Your task to perform on an android device: Open calendar and show me the first week of next month Image 0: 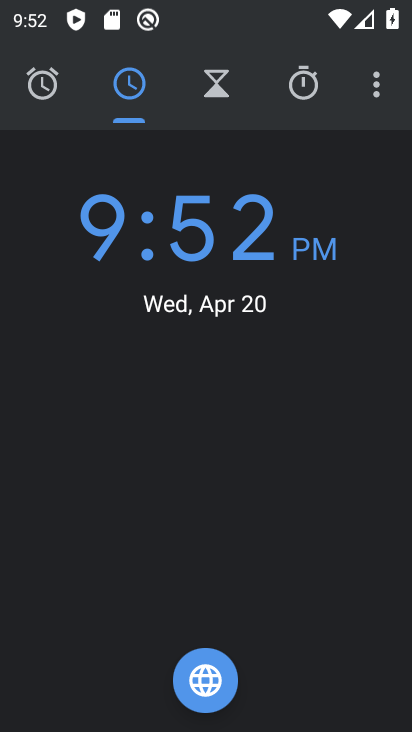
Step 0: press back button
Your task to perform on an android device: Open calendar and show me the first week of next month Image 1: 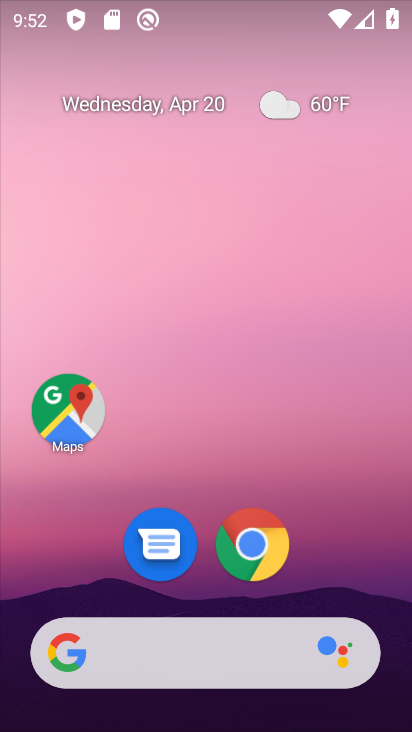
Step 1: drag from (387, 584) to (348, 227)
Your task to perform on an android device: Open calendar and show me the first week of next month Image 2: 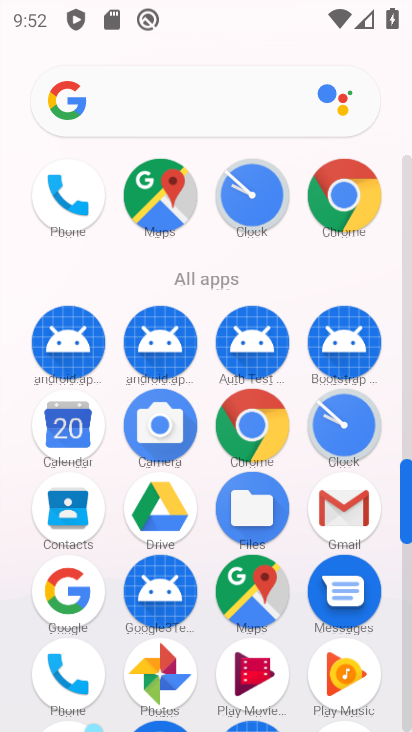
Step 2: click (60, 433)
Your task to perform on an android device: Open calendar and show me the first week of next month Image 3: 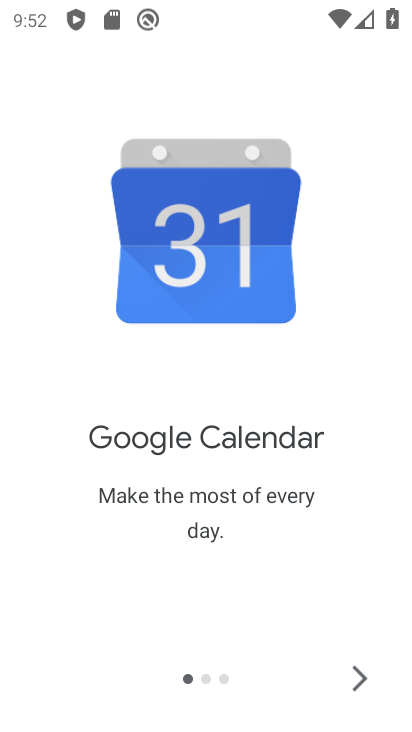
Step 3: click (359, 674)
Your task to perform on an android device: Open calendar and show me the first week of next month Image 4: 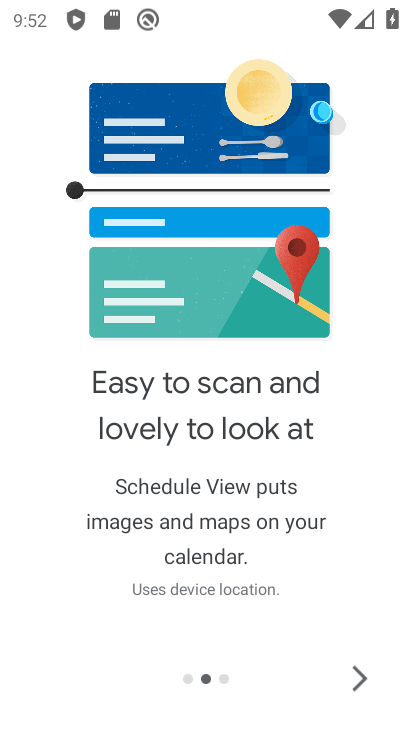
Step 4: click (359, 674)
Your task to perform on an android device: Open calendar and show me the first week of next month Image 5: 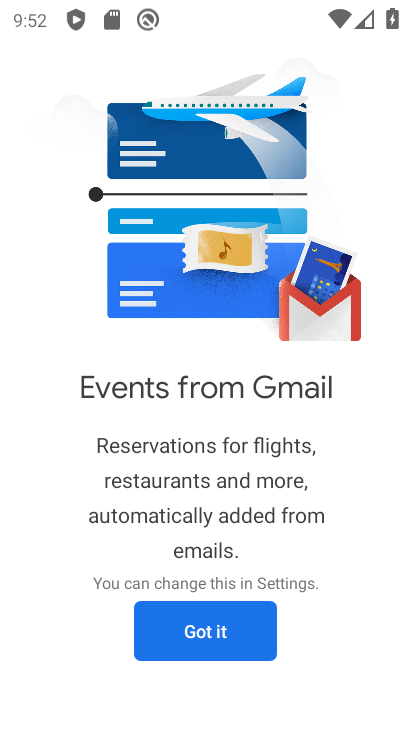
Step 5: click (249, 641)
Your task to perform on an android device: Open calendar and show me the first week of next month Image 6: 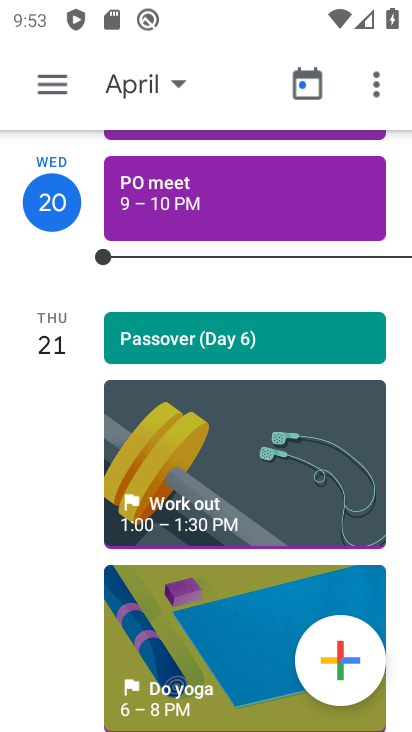
Step 6: click (52, 86)
Your task to perform on an android device: Open calendar and show me the first week of next month Image 7: 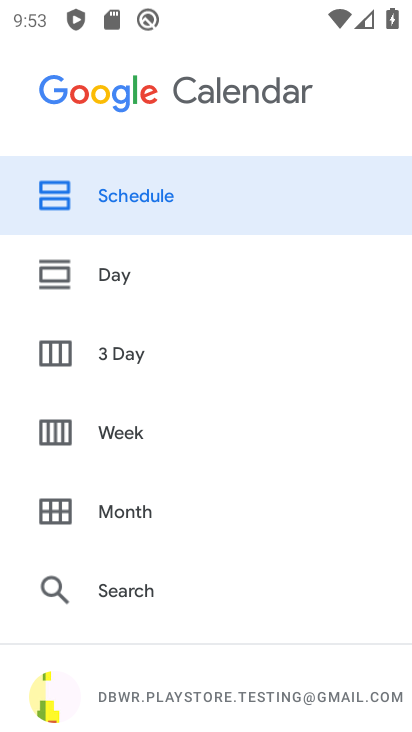
Step 7: click (146, 429)
Your task to perform on an android device: Open calendar and show me the first week of next month Image 8: 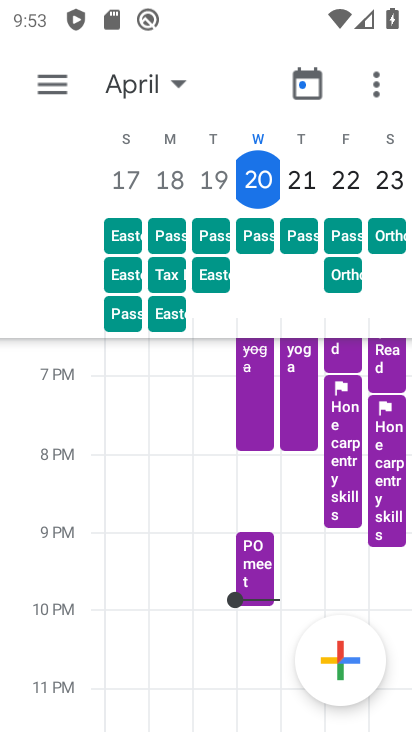
Step 8: click (181, 103)
Your task to perform on an android device: Open calendar and show me the first week of next month Image 9: 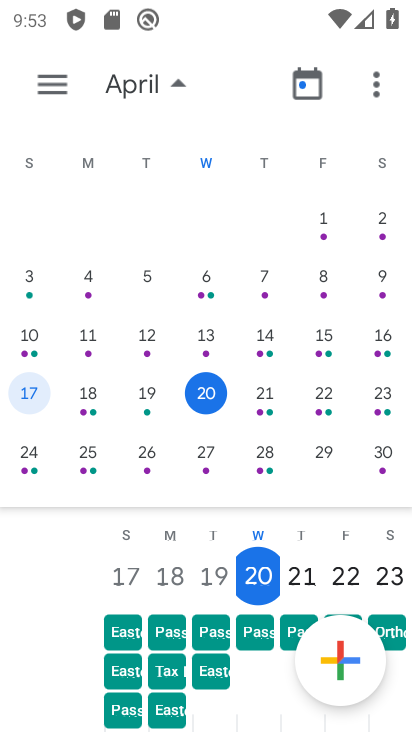
Step 9: drag from (387, 366) to (31, 363)
Your task to perform on an android device: Open calendar and show me the first week of next month Image 10: 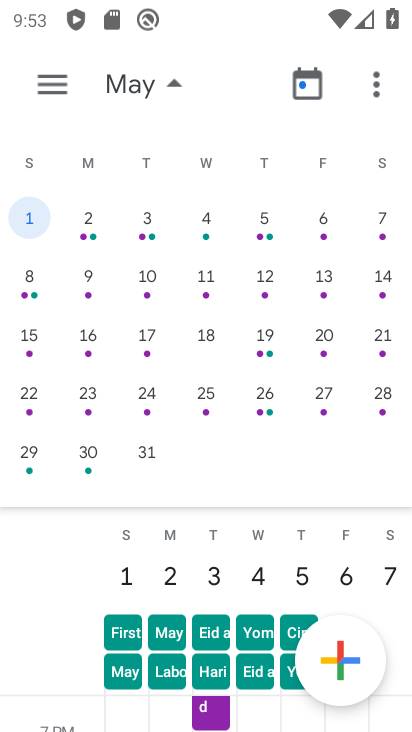
Step 10: click (211, 231)
Your task to perform on an android device: Open calendar and show me the first week of next month Image 11: 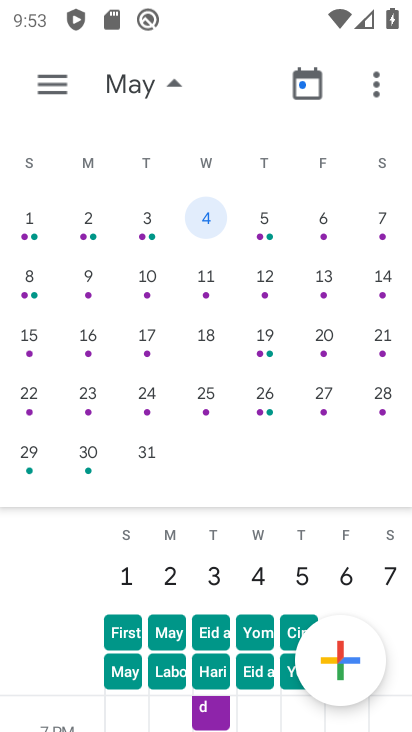
Step 11: click (173, 86)
Your task to perform on an android device: Open calendar and show me the first week of next month Image 12: 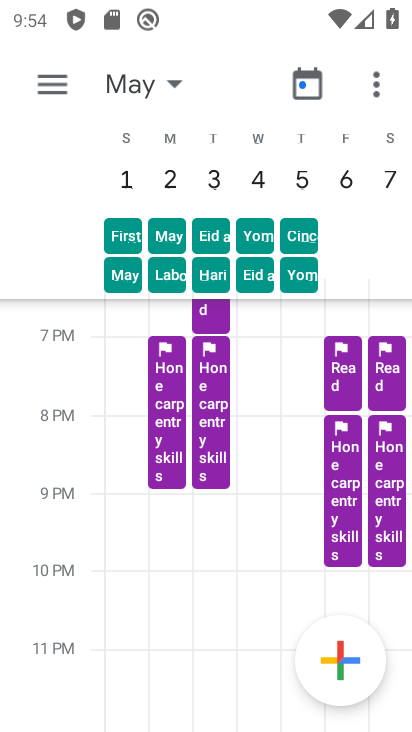
Step 12: task complete